Your task to perform on an android device: Go to eBay Image 0: 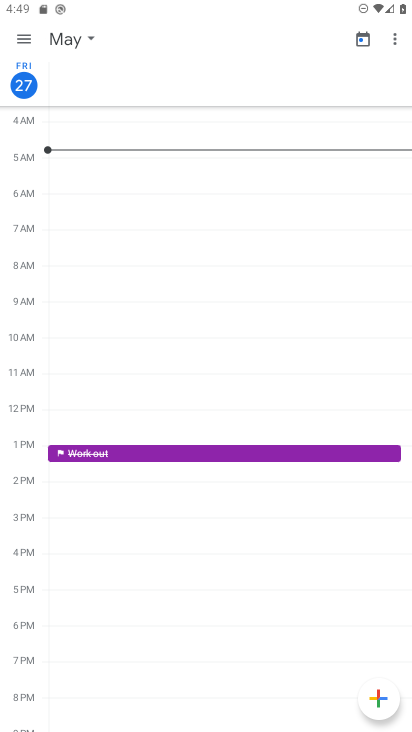
Step 0: press home button
Your task to perform on an android device: Go to eBay Image 1: 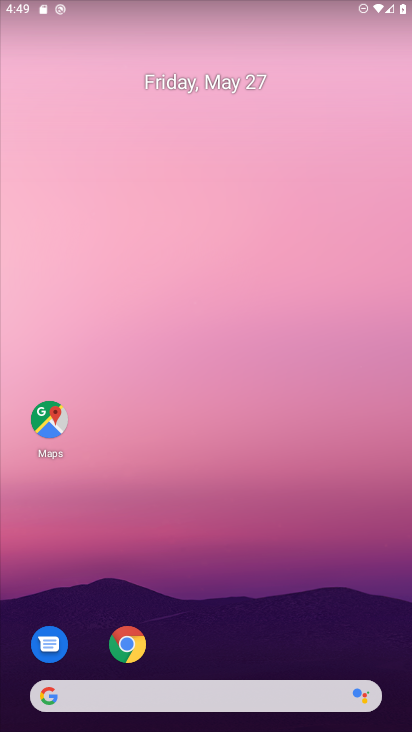
Step 1: click (132, 646)
Your task to perform on an android device: Go to eBay Image 2: 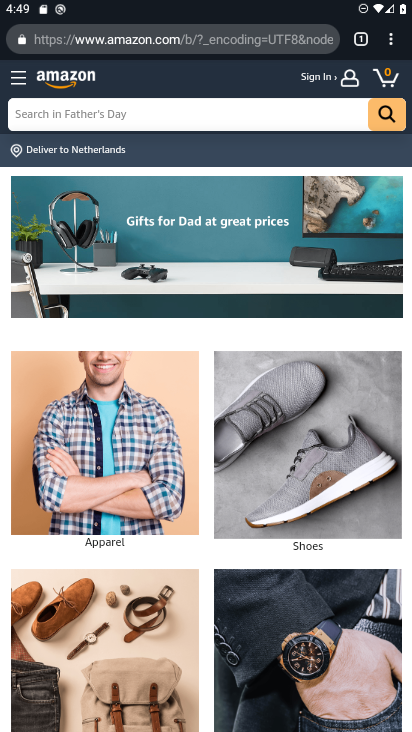
Step 2: click (389, 29)
Your task to perform on an android device: Go to eBay Image 3: 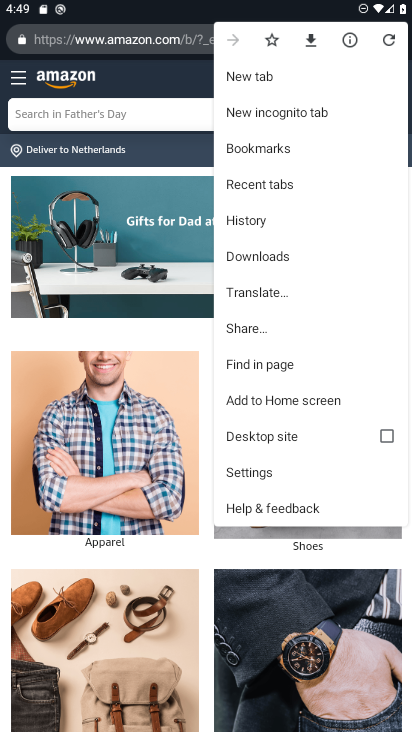
Step 3: click (249, 78)
Your task to perform on an android device: Go to eBay Image 4: 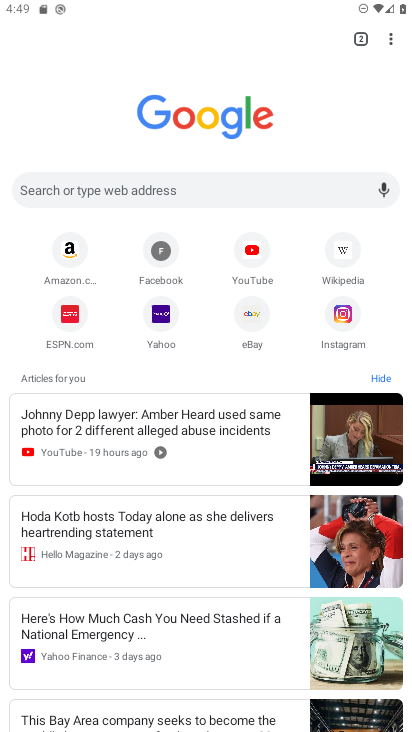
Step 4: click (262, 317)
Your task to perform on an android device: Go to eBay Image 5: 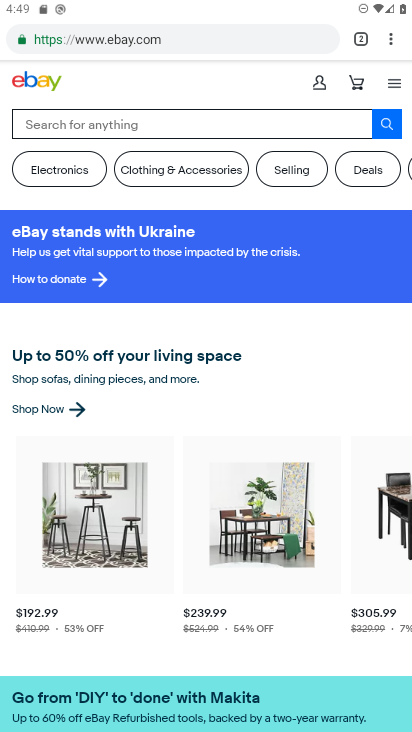
Step 5: task complete